Your task to perform on an android device: Open Google Maps and go to "Timeline" Image 0: 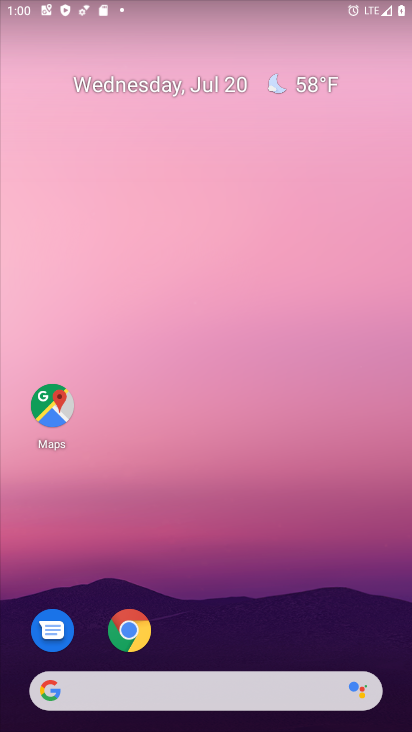
Step 0: drag from (224, 672) to (227, 186)
Your task to perform on an android device: Open Google Maps and go to "Timeline" Image 1: 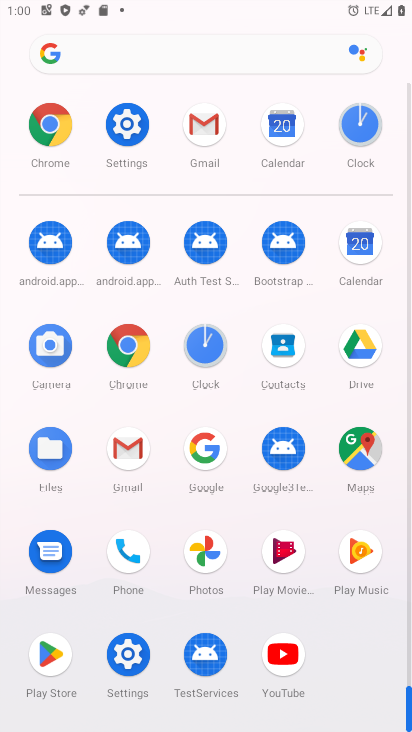
Step 1: click (366, 465)
Your task to perform on an android device: Open Google Maps and go to "Timeline" Image 2: 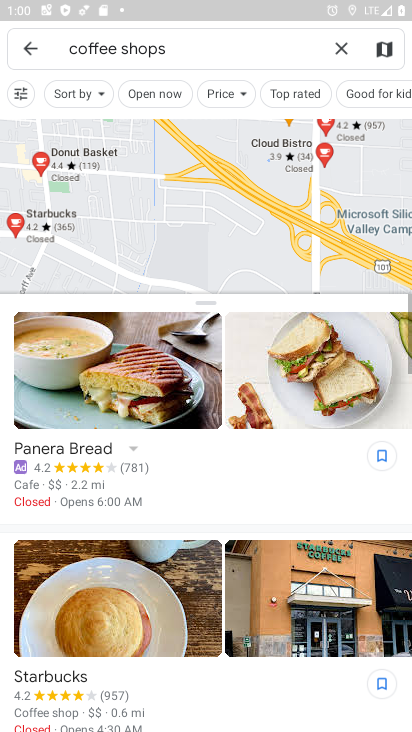
Step 2: click (30, 48)
Your task to perform on an android device: Open Google Maps and go to "Timeline" Image 3: 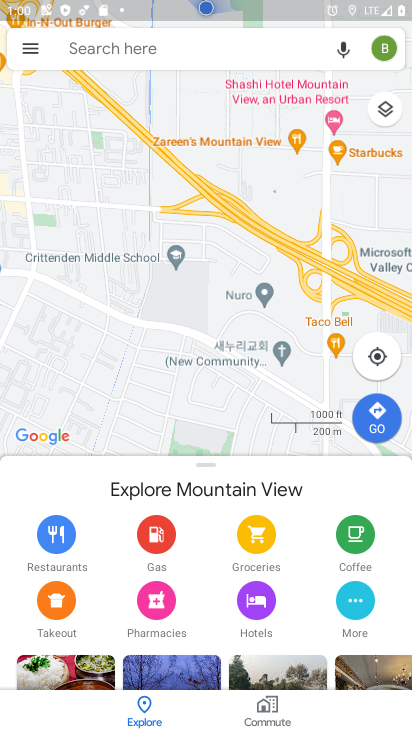
Step 3: click (30, 53)
Your task to perform on an android device: Open Google Maps and go to "Timeline" Image 4: 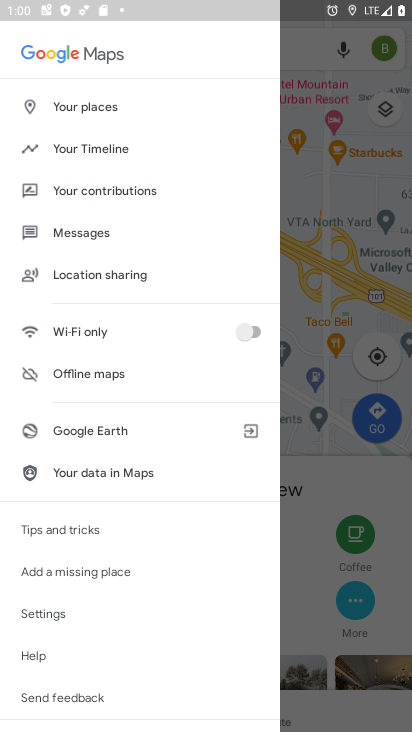
Step 4: click (75, 154)
Your task to perform on an android device: Open Google Maps and go to "Timeline" Image 5: 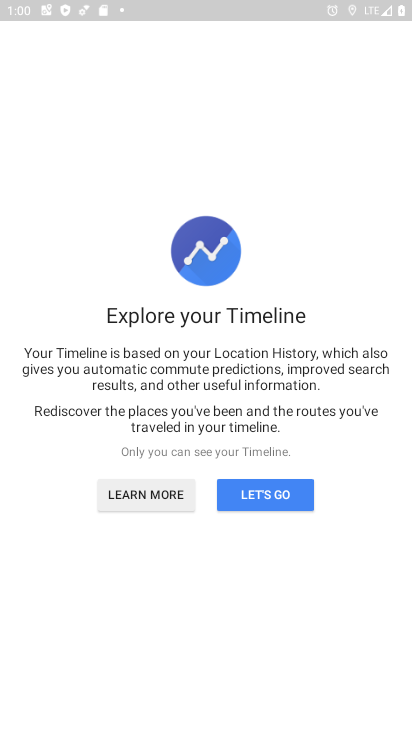
Step 5: click (252, 502)
Your task to perform on an android device: Open Google Maps and go to "Timeline" Image 6: 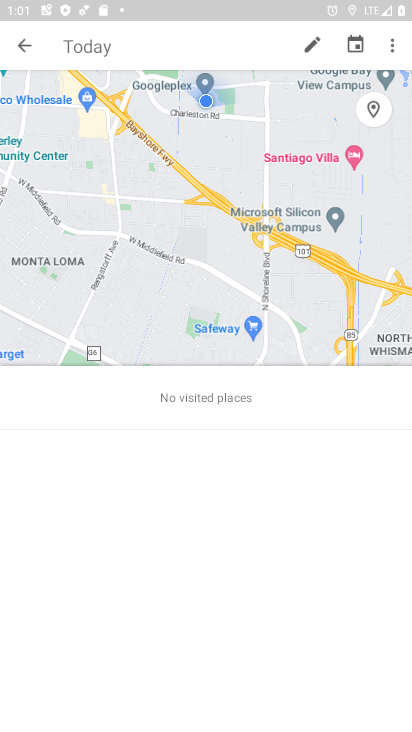
Step 6: task complete